Your task to perform on an android device: turn on sleep mode Image 0: 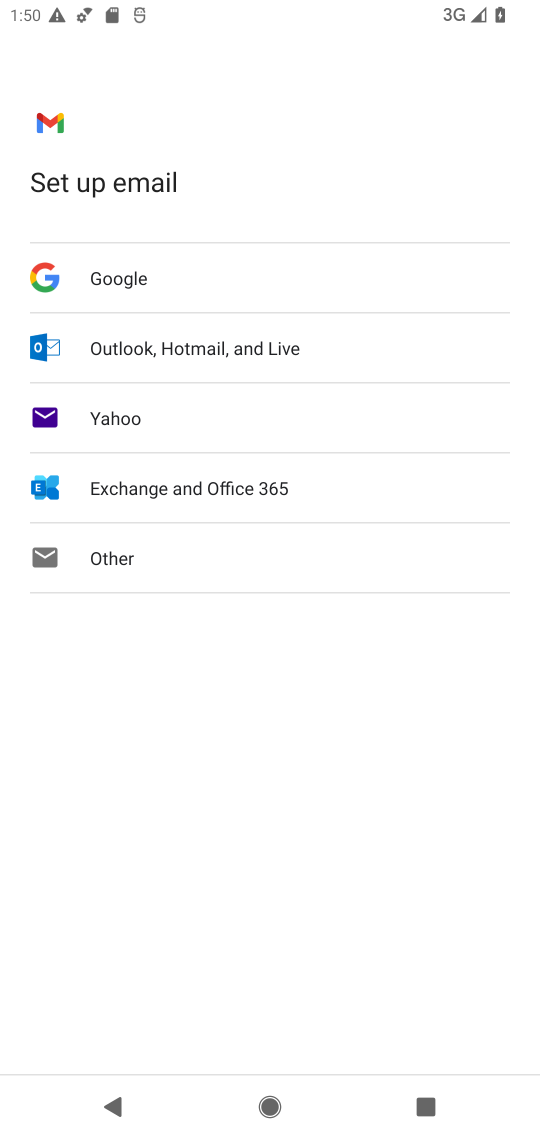
Step 0: press home button
Your task to perform on an android device: turn on sleep mode Image 1: 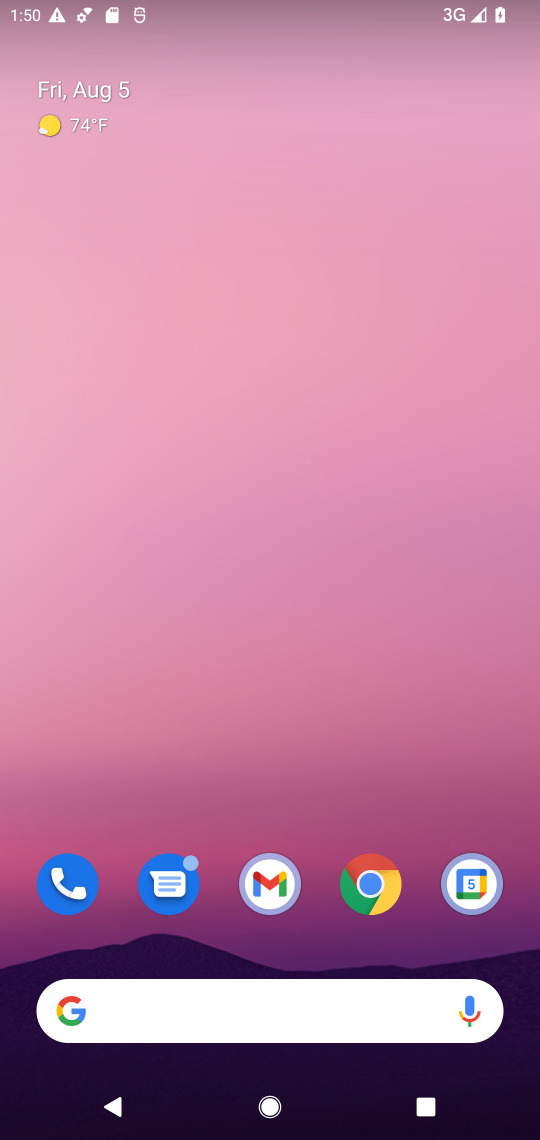
Step 1: task complete